Your task to perform on an android device: open app "Adobe Acrobat Reader" (install if not already installed), go to login, and select forgot password Image 0: 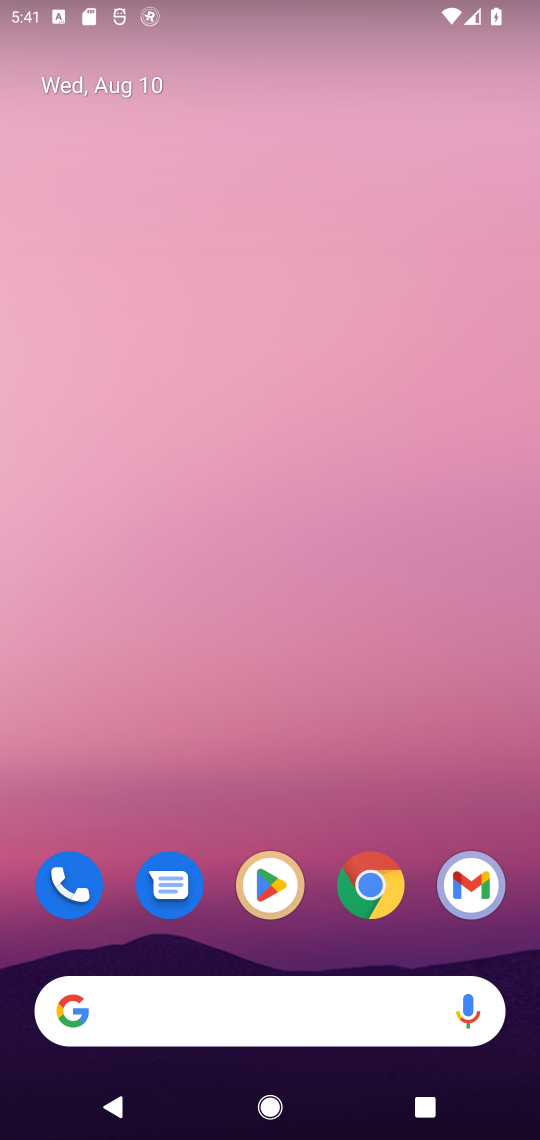
Step 0: click (269, 868)
Your task to perform on an android device: open app "Adobe Acrobat Reader" (install if not already installed), go to login, and select forgot password Image 1: 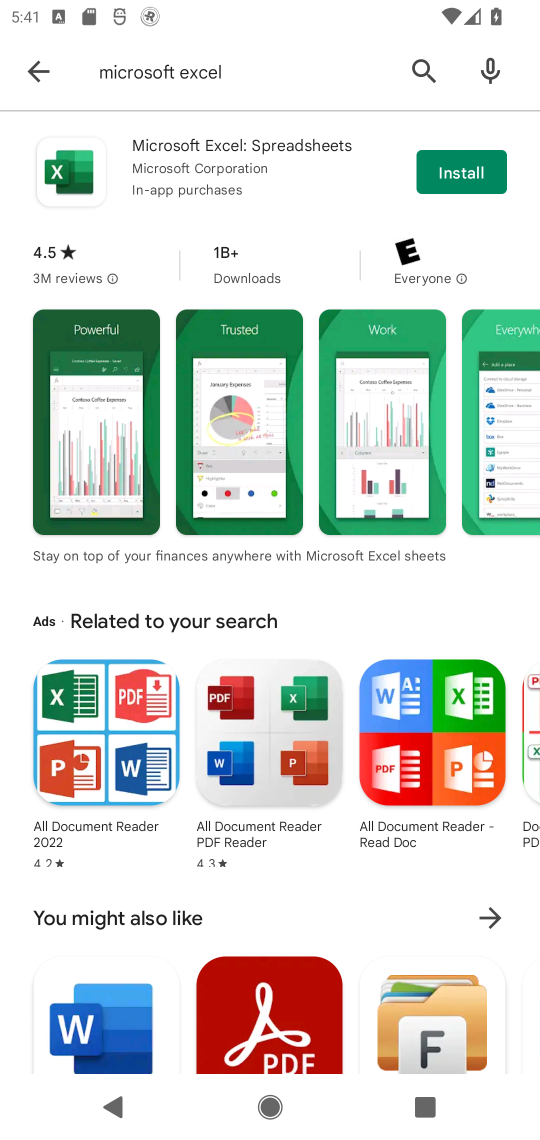
Step 1: click (327, 992)
Your task to perform on an android device: open app "Adobe Acrobat Reader" (install if not already installed), go to login, and select forgot password Image 2: 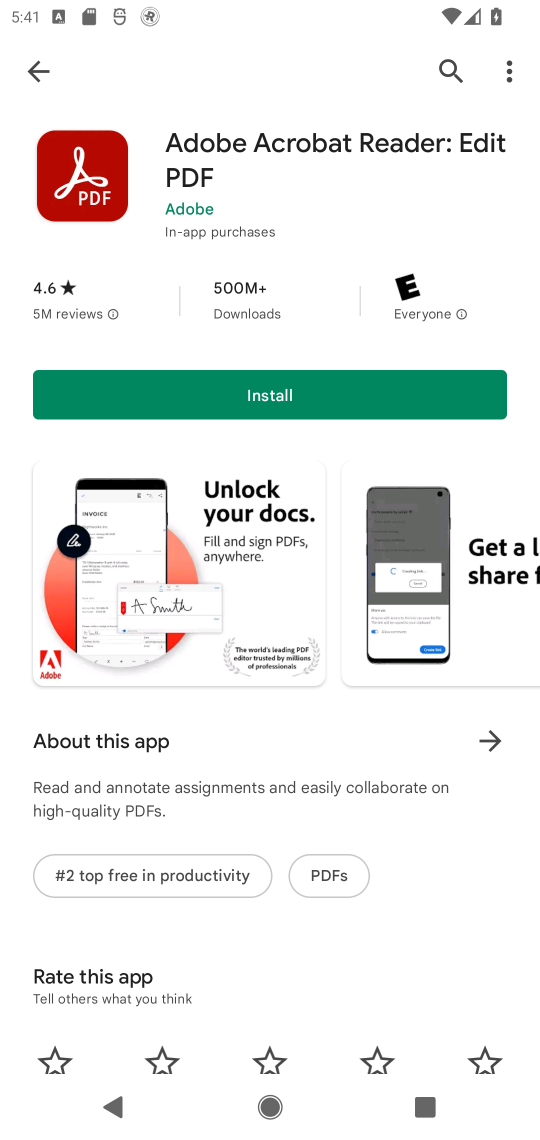
Step 2: click (270, 393)
Your task to perform on an android device: open app "Adobe Acrobat Reader" (install if not already installed), go to login, and select forgot password Image 3: 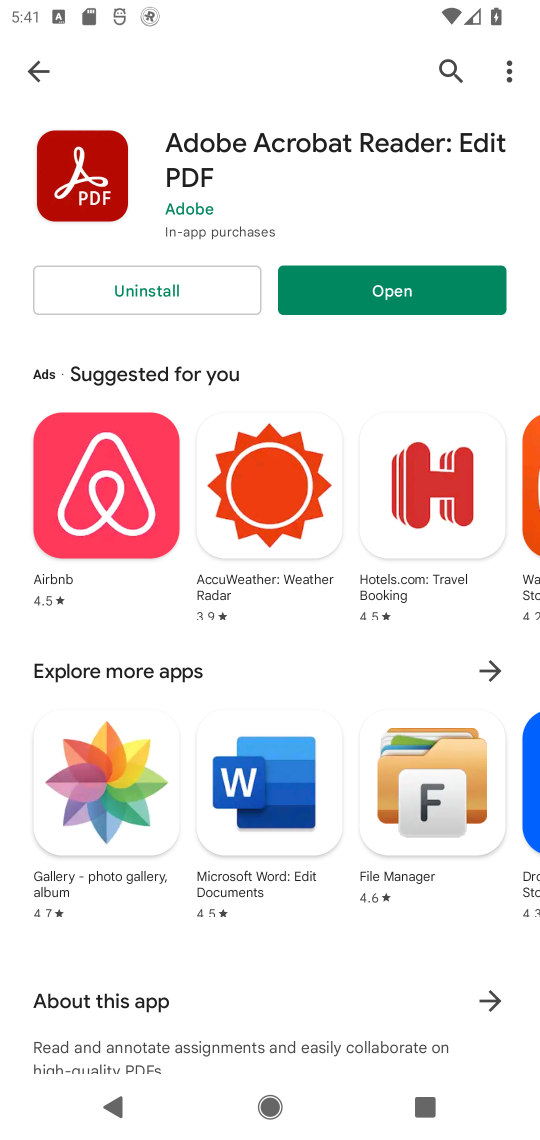
Step 3: click (407, 293)
Your task to perform on an android device: open app "Adobe Acrobat Reader" (install if not already installed), go to login, and select forgot password Image 4: 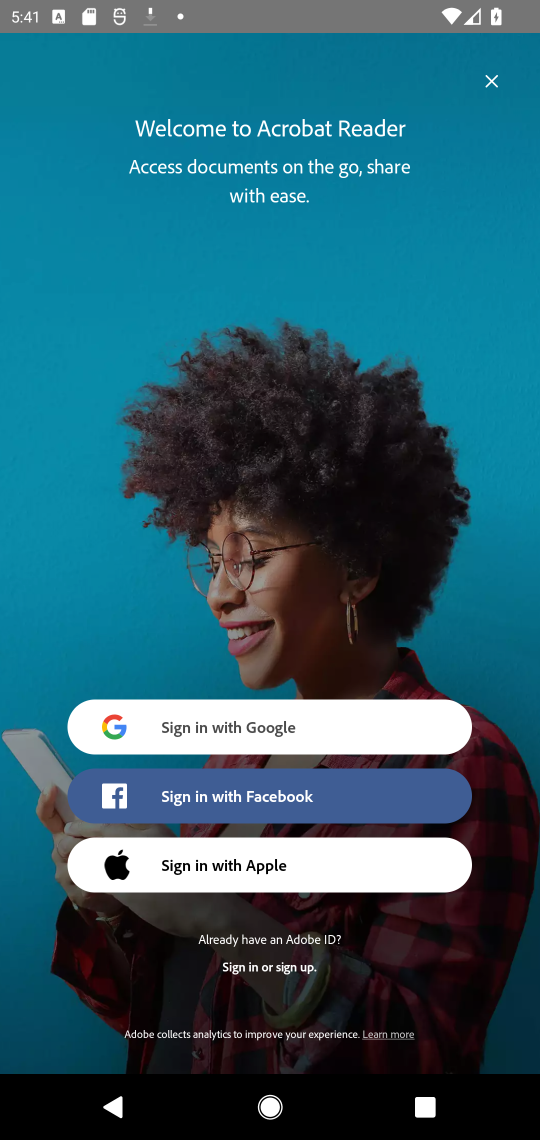
Step 4: click (305, 966)
Your task to perform on an android device: open app "Adobe Acrobat Reader" (install if not already installed), go to login, and select forgot password Image 5: 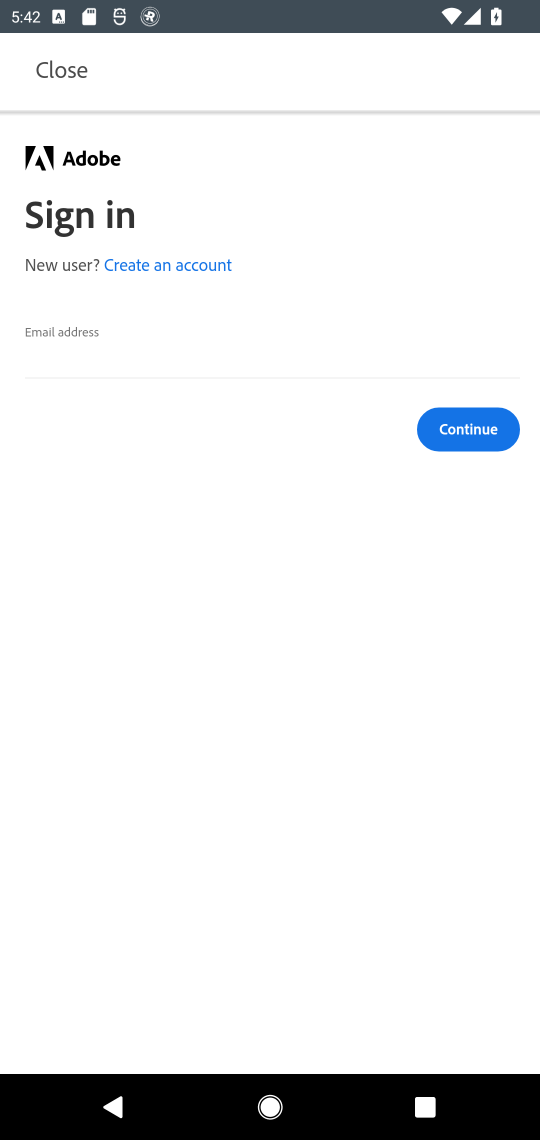
Step 5: click (472, 441)
Your task to perform on an android device: open app "Adobe Acrobat Reader" (install if not already installed), go to login, and select forgot password Image 6: 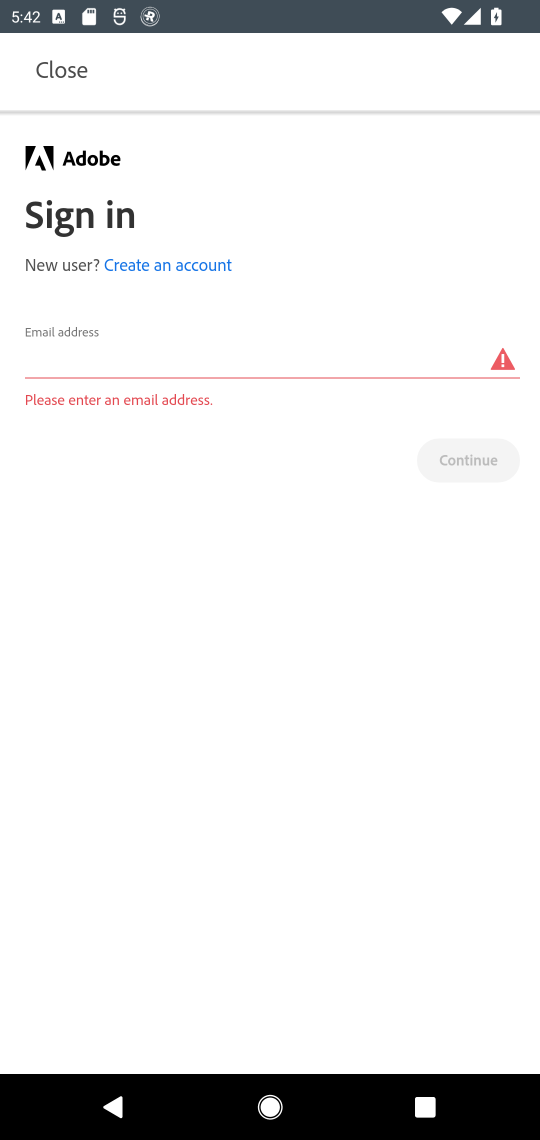
Step 6: click (179, 366)
Your task to perform on an android device: open app "Adobe Acrobat Reader" (install if not already installed), go to login, and select forgot password Image 7: 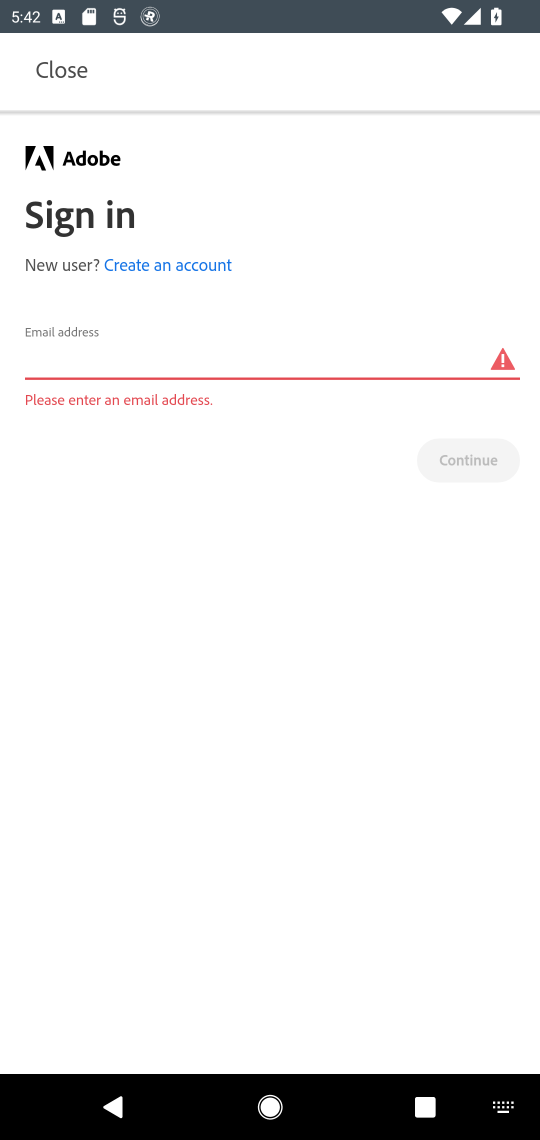
Step 7: task complete